Your task to perform on an android device: set an alarm Image 0: 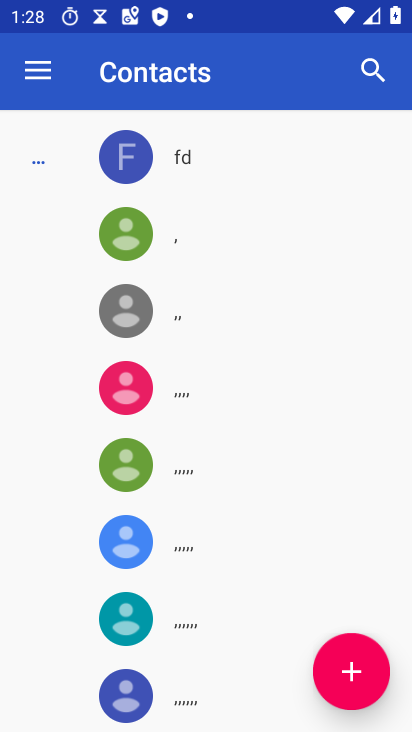
Step 0: press home button
Your task to perform on an android device: set an alarm Image 1: 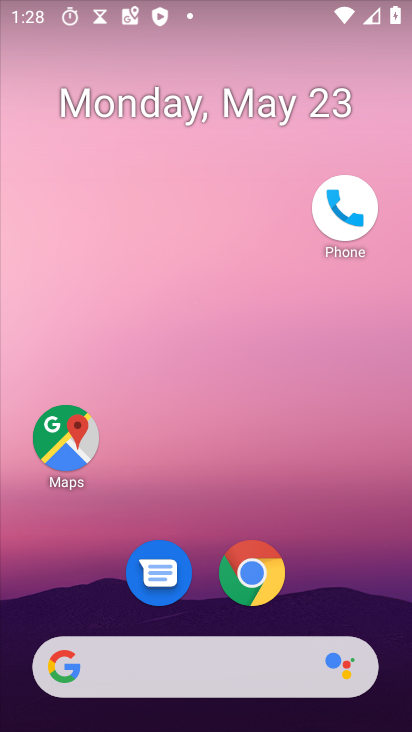
Step 1: drag from (179, 669) to (320, 69)
Your task to perform on an android device: set an alarm Image 2: 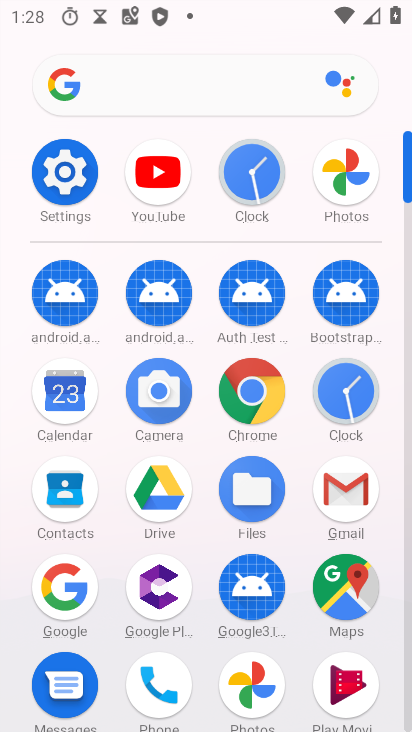
Step 2: click (264, 196)
Your task to perform on an android device: set an alarm Image 3: 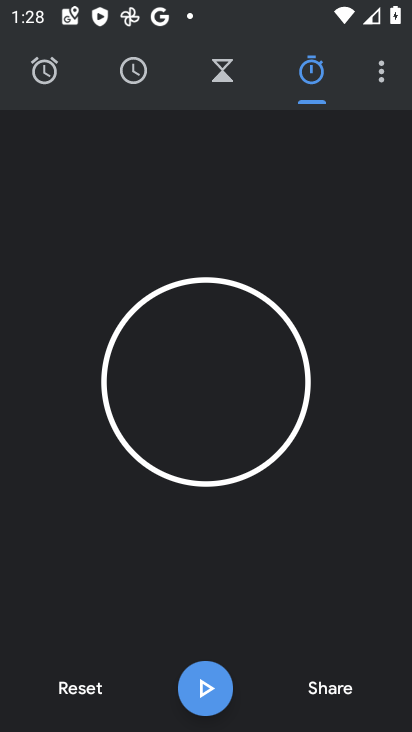
Step 3: click (48, 73)
Your task to perform on an android device: set an alarm Image 4: 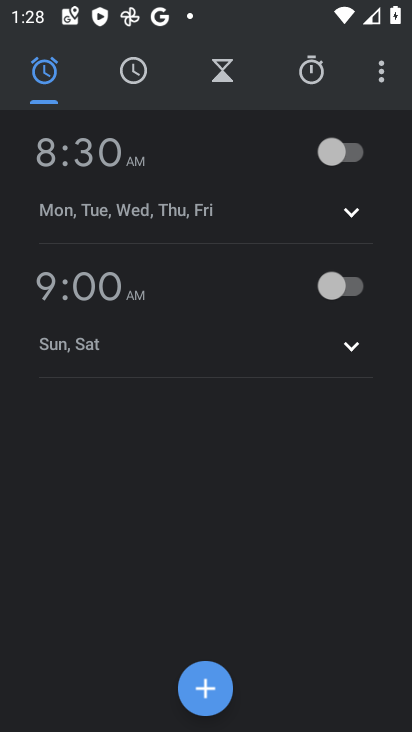
Step 4: click (353, 153)
Your task to perform on an android device: set an alarm Image 5: 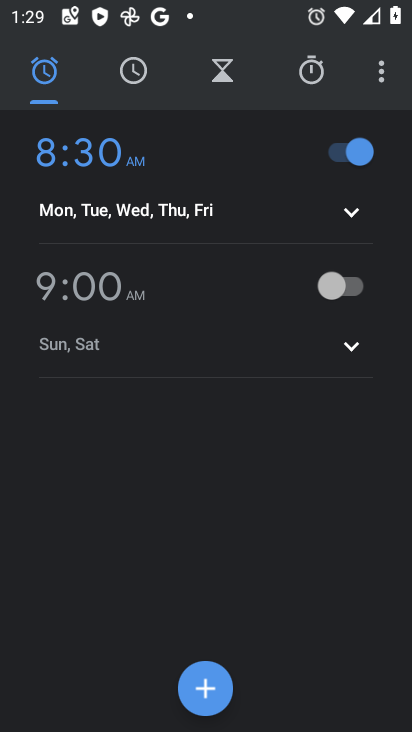
Step 5: task complete